Your task to perform on an android device: Go to ESPN.com Image 0: 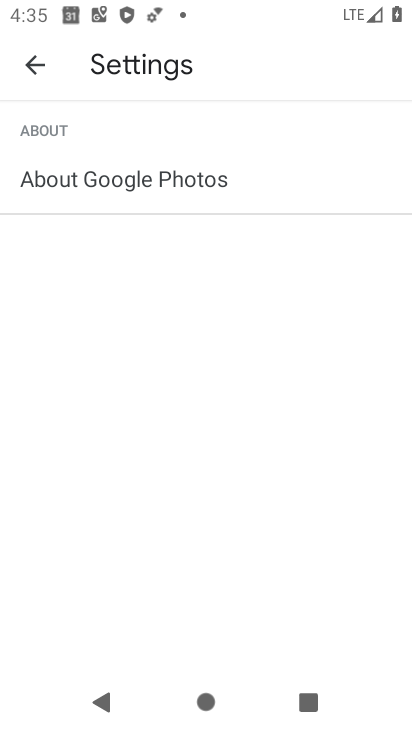
Step 0: press home button
Your task to perform on an android device: Go to ESPN.com Image 1: 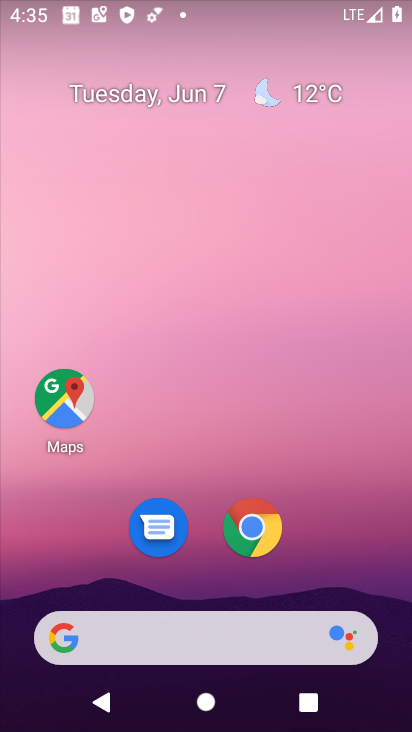
Step 1: click (253, 522)
Your task to perform on an android device: Go to ESPN.com Image 2: 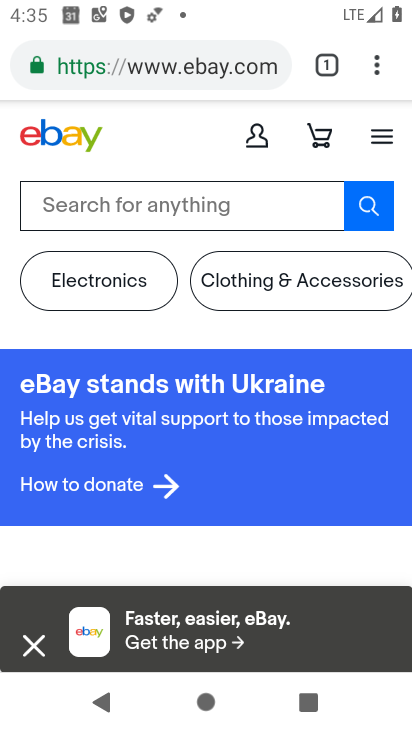
Step 2: click (242, 66)
Your task to perform on an android device: Go to ESPN.com Image 3: 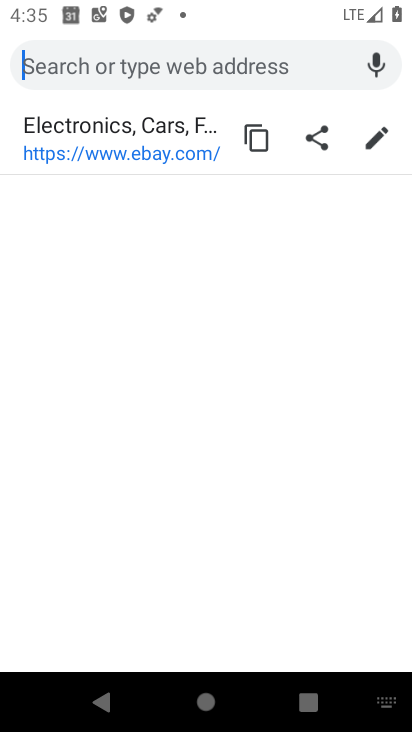
Step 3: type "ESPN.com"
Your task to perform on an android device: Go to ESPN.com Image 4: 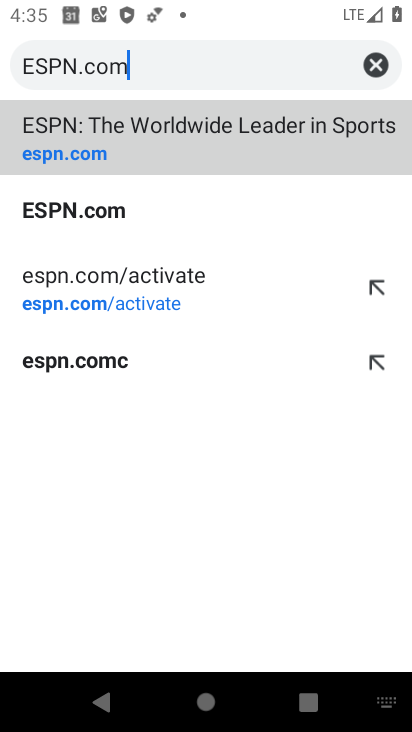
Step 4: click (88, 220)
Your task to perform on an android device: Go to ESPN.com Image 5: 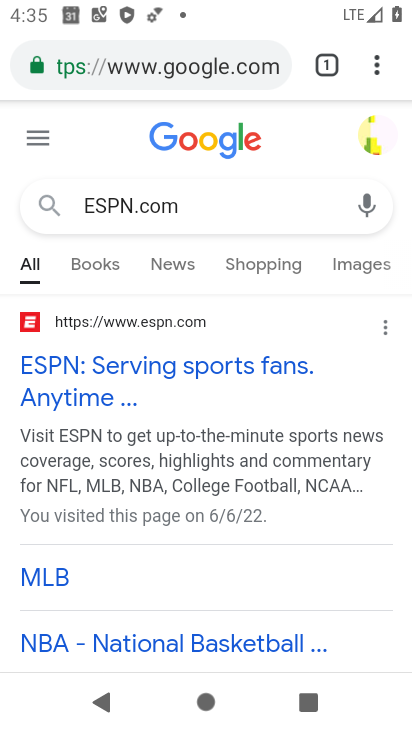
Step 5: click (162, 357)
Your task to perform on an android device: Go to ESPN.com Image 6: 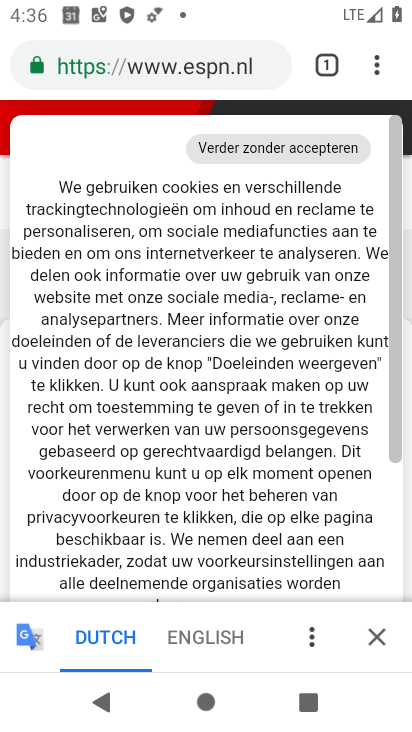
Step 6: task complete